Your task to perform on an android device: When is my next appointment? Image 0: 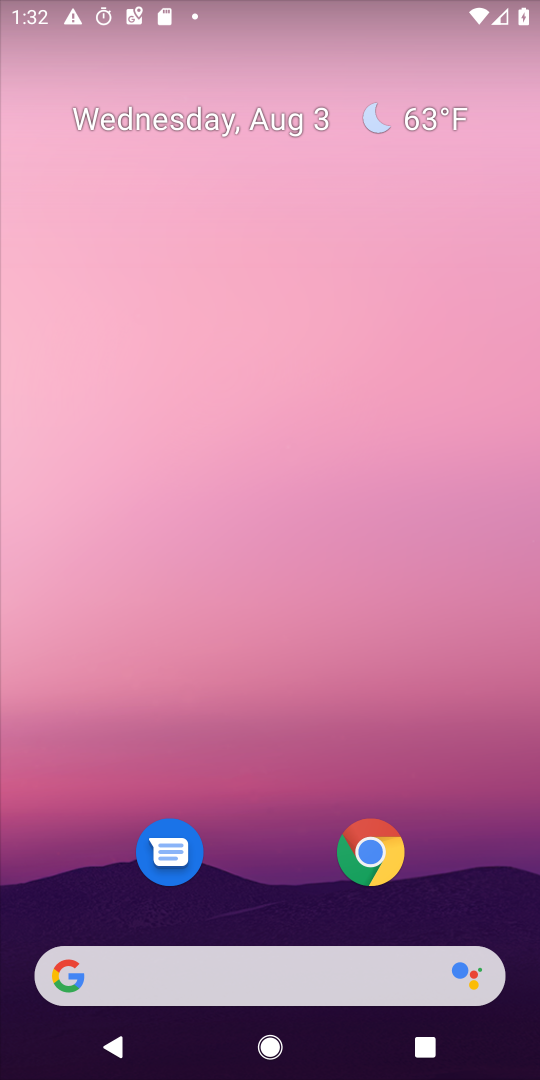
Step 0: drag from (480, 863) to (291, 21)
Your task to perform on an android device: When is my next appointment? Image 1: 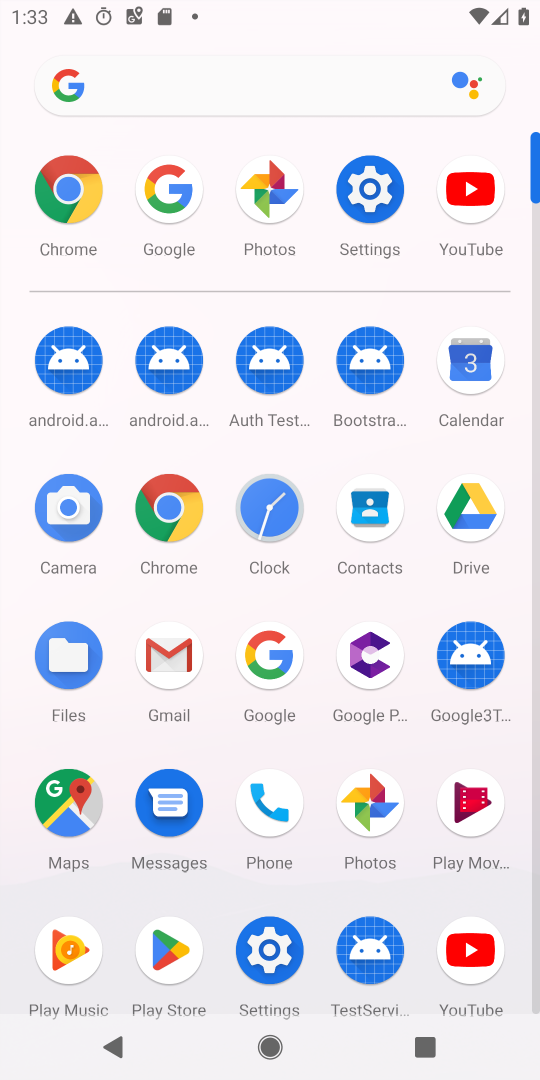
Step 1: click (465, 382)
Your task to perform on an android device: When is my next appointment? Image 2: 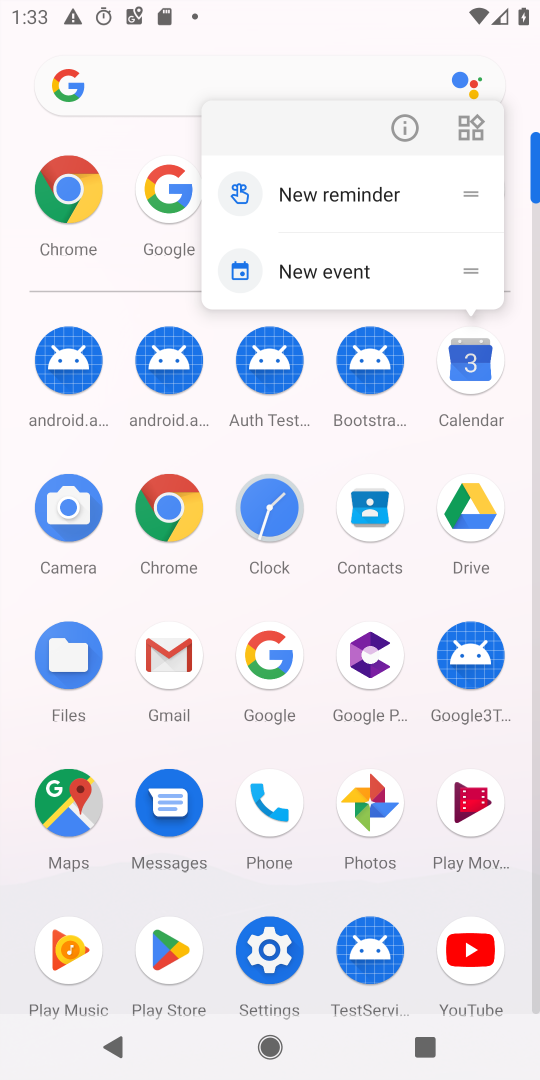
Step 2: click (465, 382)
Your task to perform on an android device: When is my next appointment? Image 3: 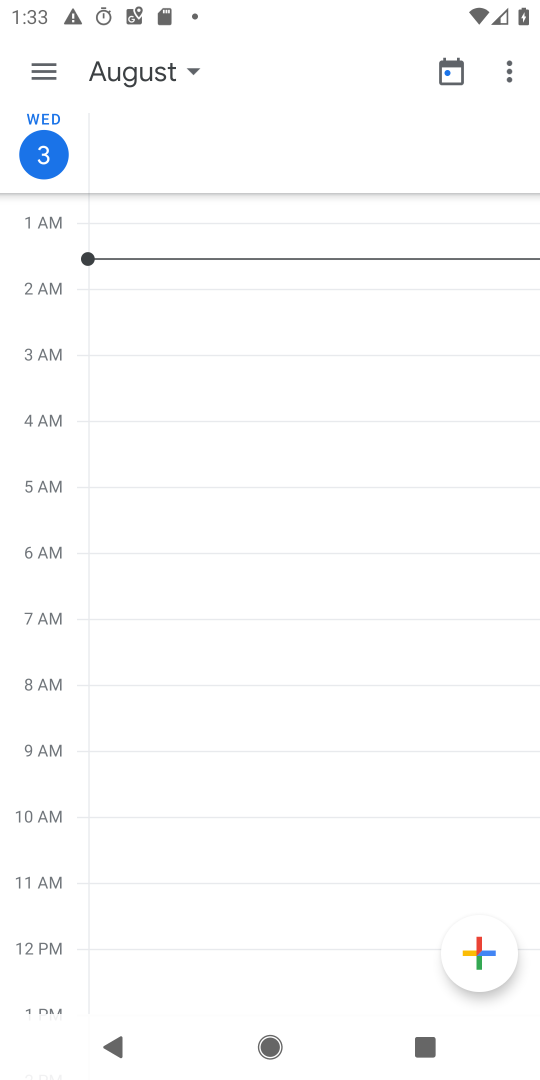
Step 3: task complete